Your task to perform on an android device: open chrome and create a bookmark for the current page Image 0: 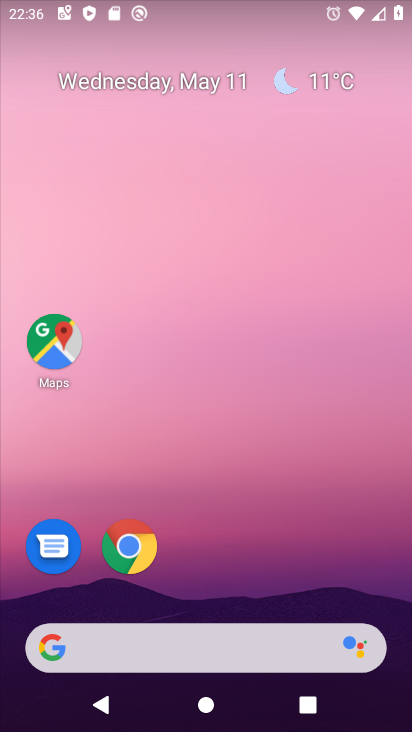
Step 0: click (129, 541)
Your task to perform on an android device: open chrome and create a bookmark for the current page Image 1: 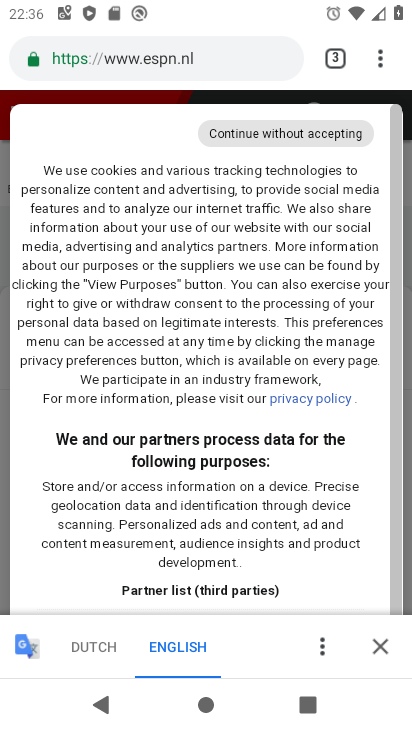
Step 1: click (378, 66)
Your task to perform on an android device: open chrome and create a bookmark for the current page Image 2: 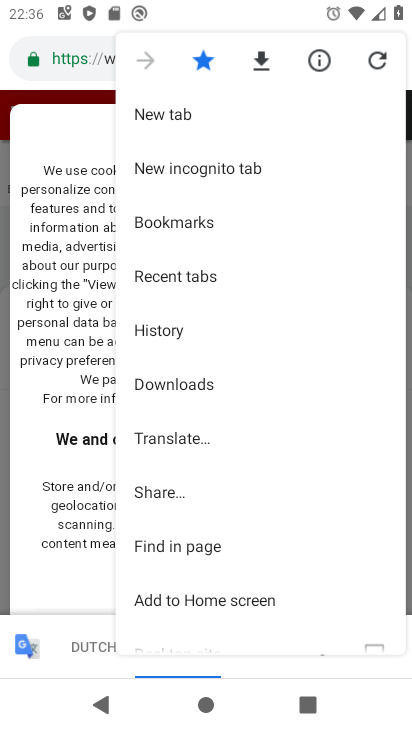
Step 2: task complete